Your task to perform on an android device: What is the recent news? Image 0: 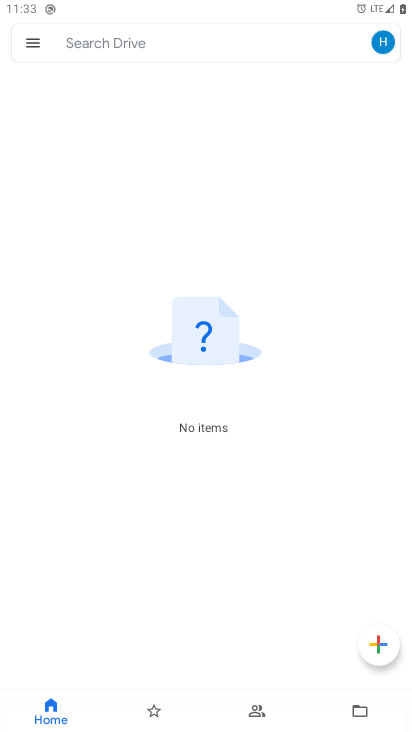
Step 0: press home button
Your task to perform on an android device: What is the recent news? Image 1: 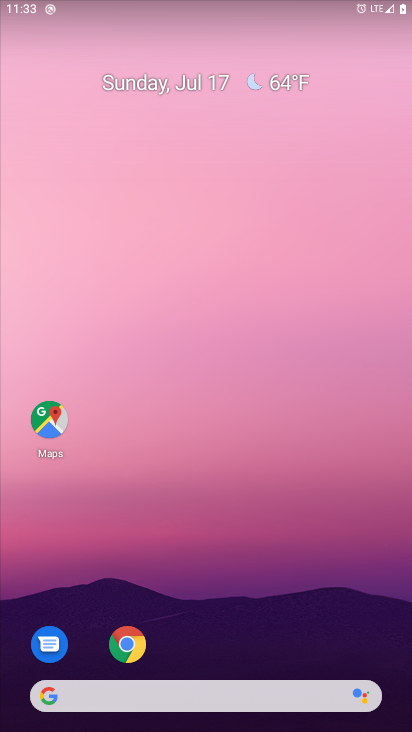
Step 1: click (47, 688)
Your task to perform on an android device: What is the recent news? Image 2: 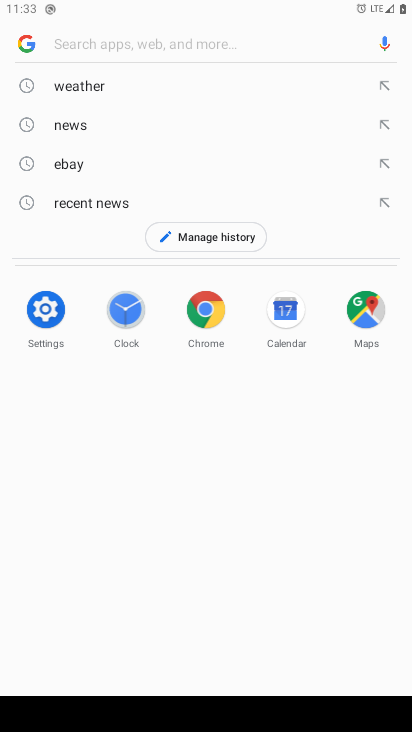
Step 2: type "recent news"
Your task to perform on an android device: What is the recent news? Image 3: 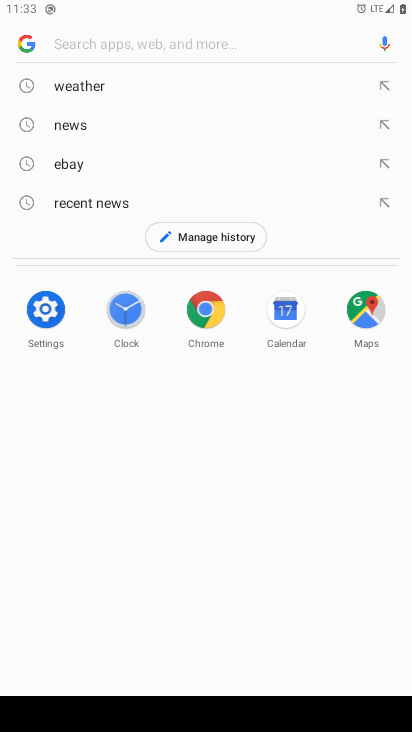
Step 3: click (78, 40)
Your task to perform on an android device: What is the recent news? Image 4: 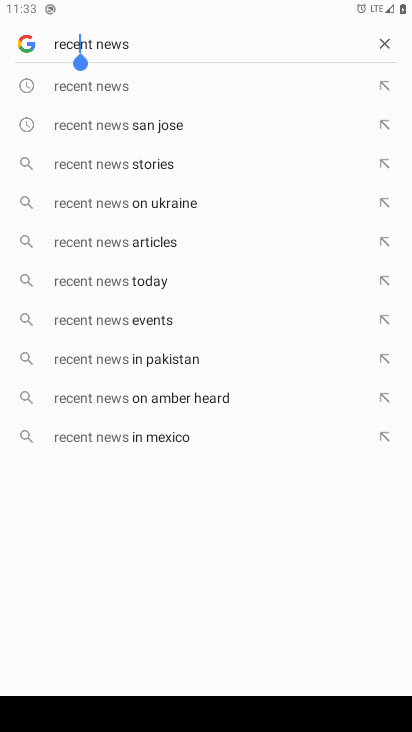
Step 4: press enter
Your task to perform on an android device: What is the recent news? Image 5: 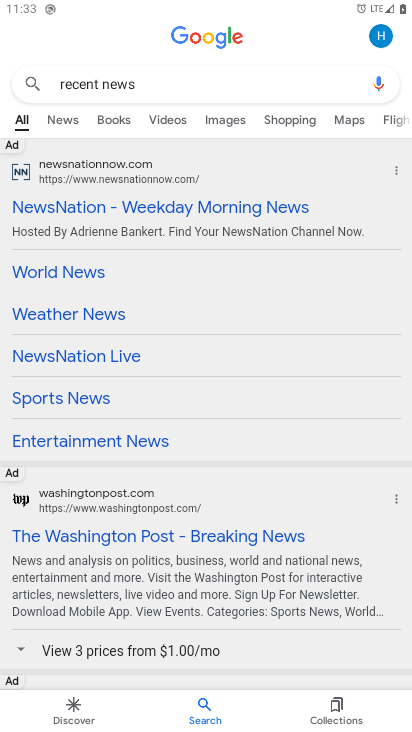
Step 5: task complete